Your task to perform on an android device: Play the last video I watched on Youtube Image 0: 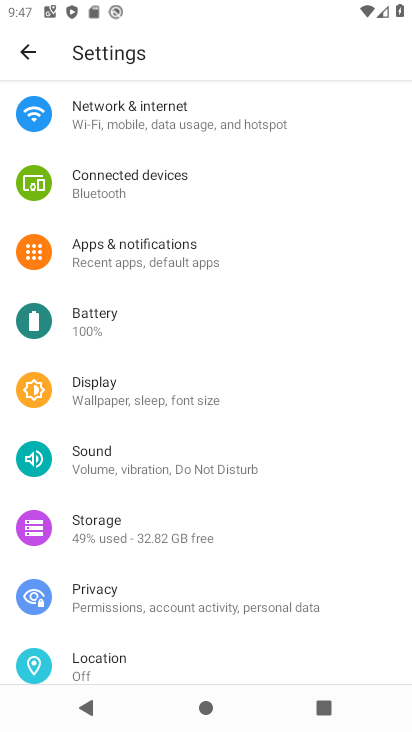
Step 0: press home button
Your task to perform on an android device: Play the last video I watched on Youtube Image 1: 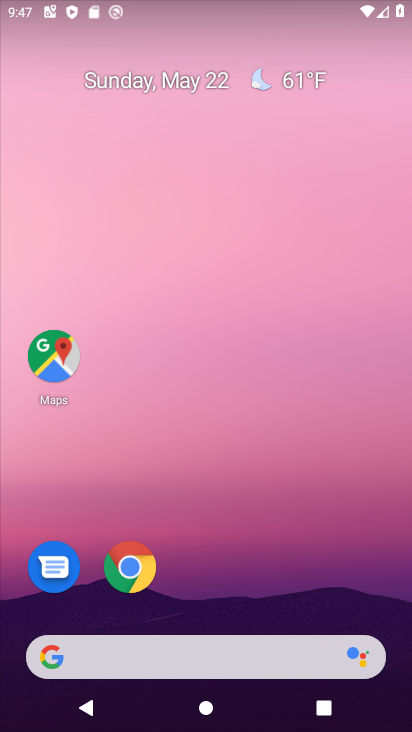
Step 1: drag from (241, 622) to (195, 18)
Your task to perform on an android device: Play the last video I watched on Youtube Image 2: 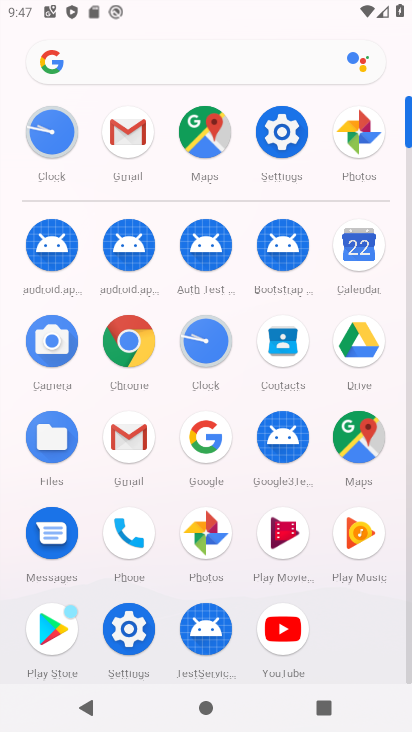
Step 2: click (292, 638)
Your task to perform on an android device: Play the last video I watched on Youtube Image 3: 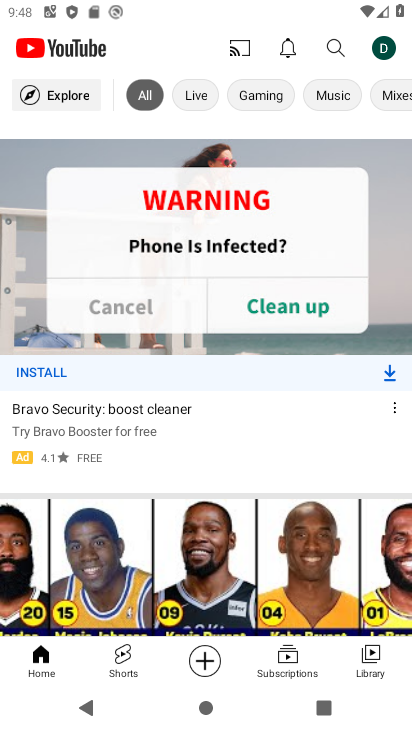
Step 3: click (362, 657)
Your task to perform on an android device: Play the last video I watched on Youtube Image 4: 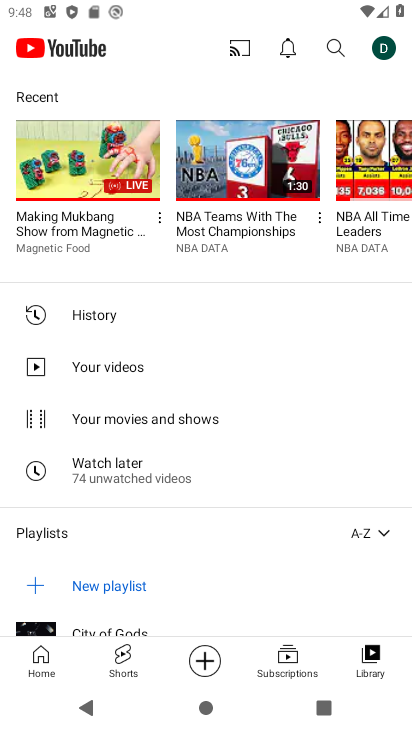
Step 4: click (102, 313)
Your task to perform on an android device: Play the last video I watched on Youtube Image 5: 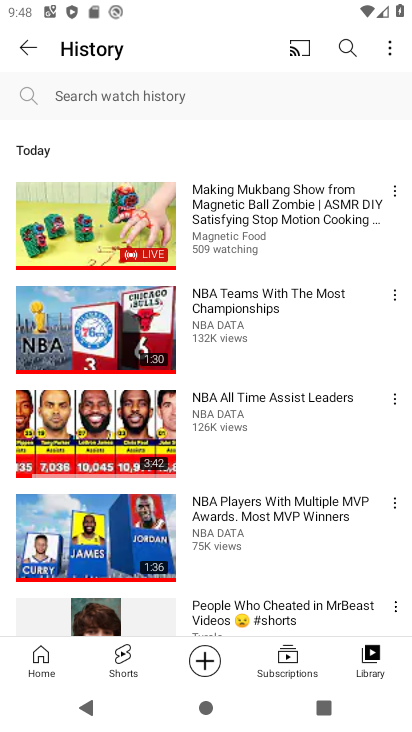
Step 5: task complete